Your task to perform on an android device: visit the assistant section in the google photos Image 0: 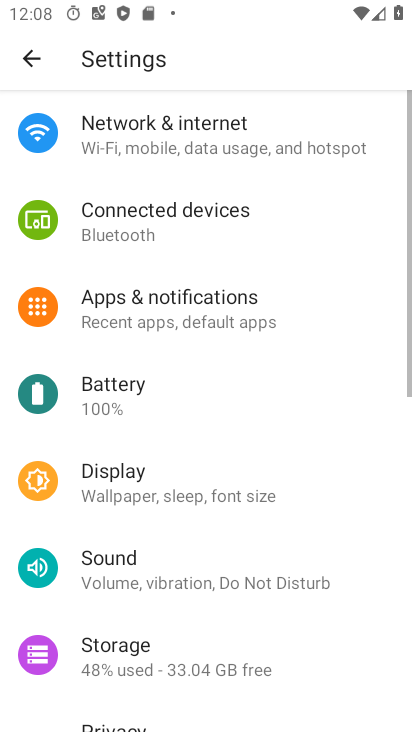
Step 0: press home button
Your task to perform on an android device: visit the assistant section in the google photos Image 1: 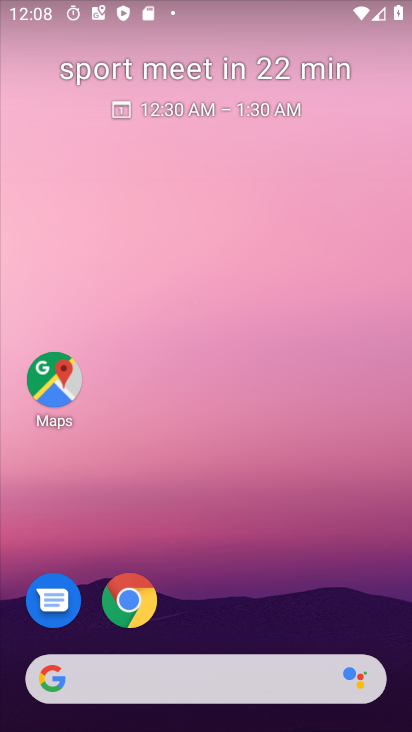
Step 1: drag from (195, 639) to (243, 81)
Your task to perform on an android device: visit the assistant section in the google photos Image 2: 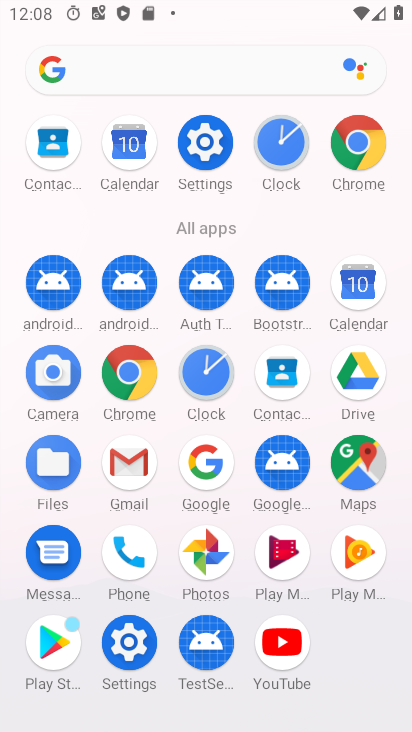
Step 2: click (199, 547)
Your task to perform on an android device: visit the assistant section in the google photos Image 3: 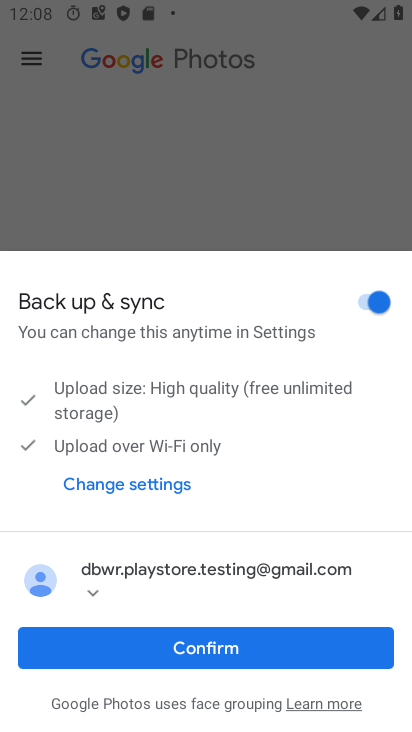
Step 3: click (220, 645)
Your task to perform on an android device: visit the assistant section in the google photos Image 4: 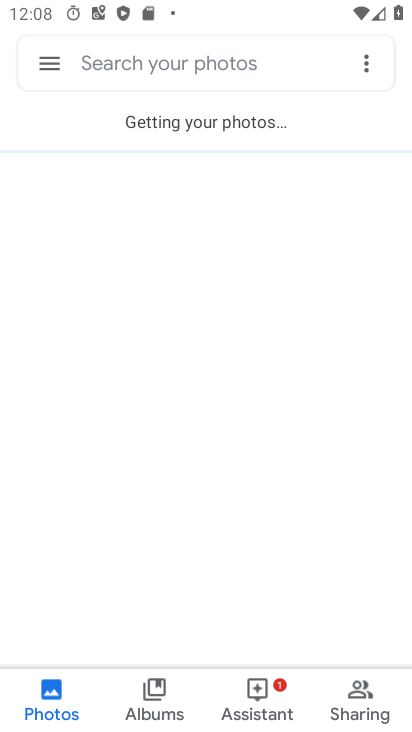
Step 4: click (258, 682)
Your task to perform on an android device: visit the assistant section in the google photos Image 5: 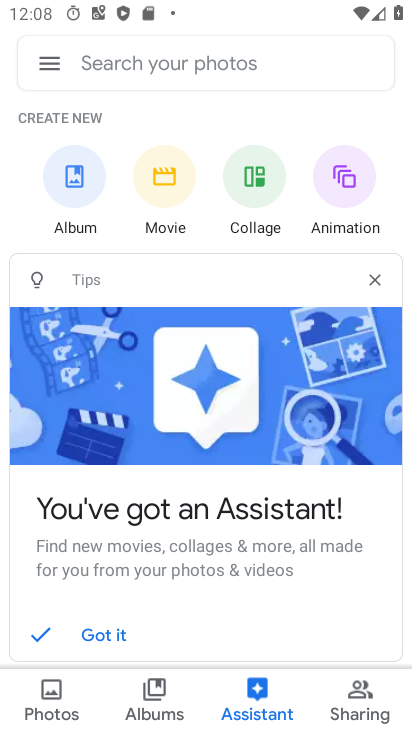
Step 5: task complete